Your task to perform on an android device: change notifications settings Image 0: 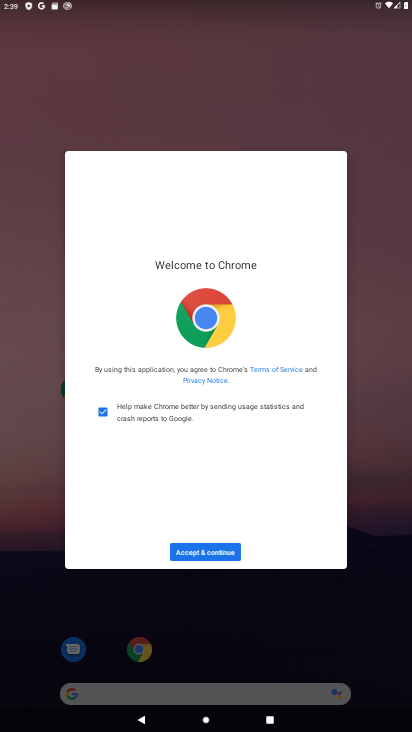
Step 0: press home button
Your task to perform on an android device: change notifications settings Image 1: 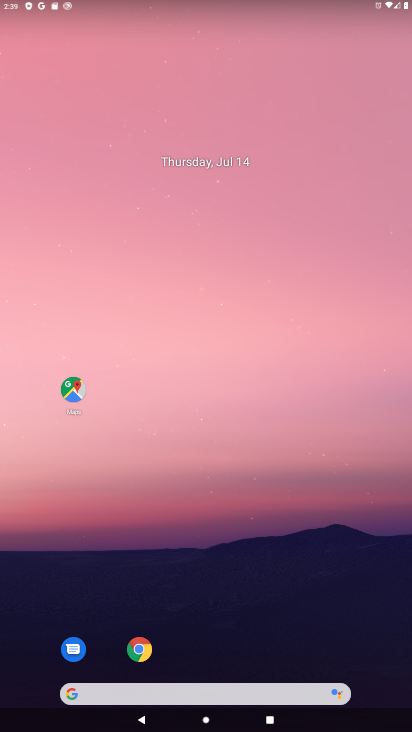
Step 1: drag from (275, 614) to (233, 117)
Your task to perform on an android device: change notifications settings Image 2: 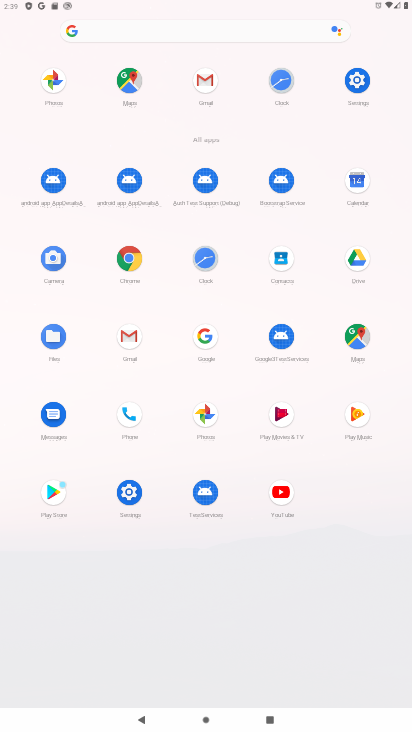
Step 2: click (356, 84)
Your task to perform on an android device: change notifications settings Image 3: 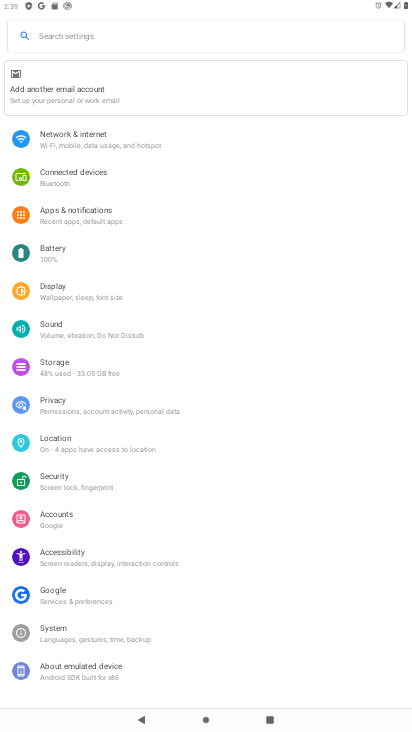
Step 3: click (125, 223)
Your task to perform on an android device: change notifications settings Image 4: 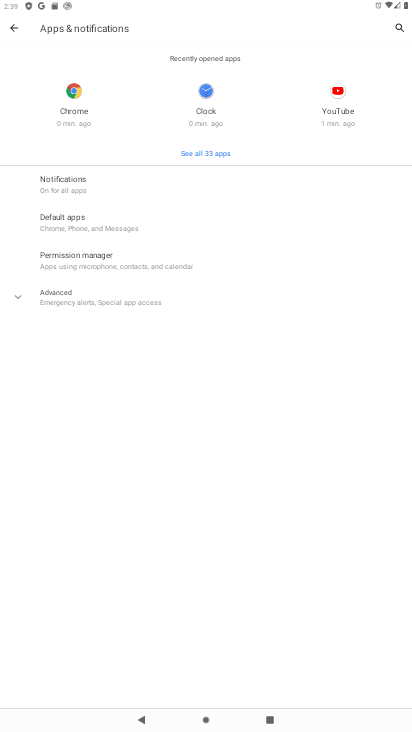
Step 4: click (106, 184)
Your task to perform on an android device: change notifications settings Image 5: 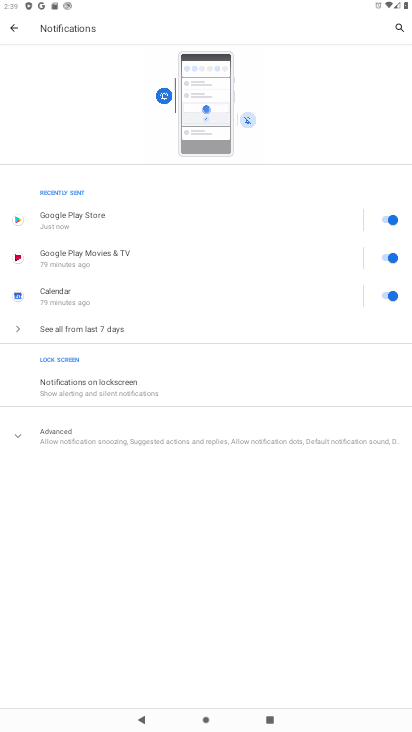
Step 5: click (87, 329)
Your task to perform on an android device: change notifications settings Image 6: 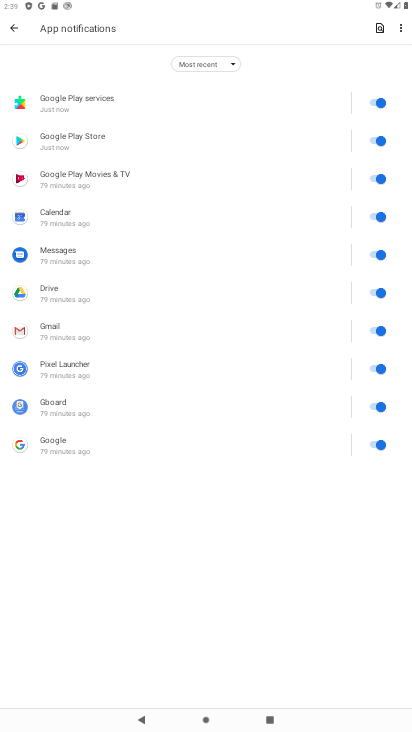
Step 6: click (377, 102)
Your task to perform on an android device: change notifications settings Image 7: 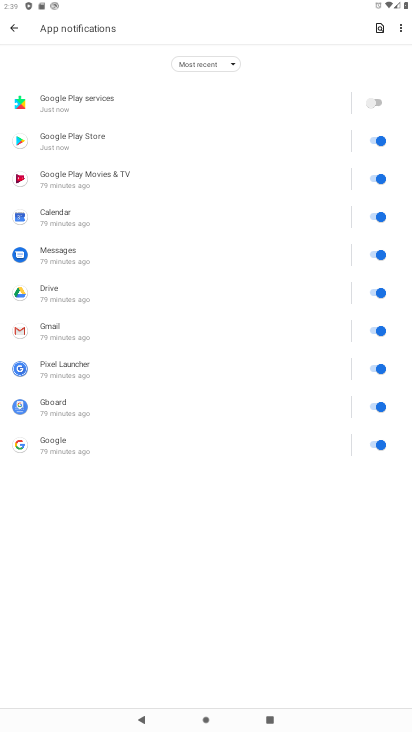
Step 7: click (378, 144)
Your task to perform on an android device: change notifications settings Image 8: 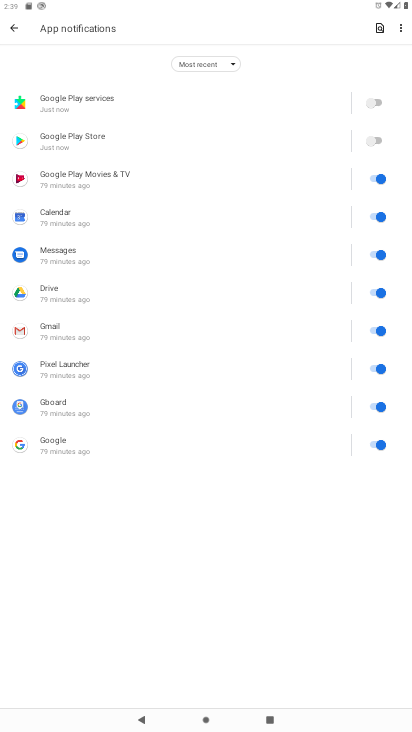
Step 8: click (378, 177)
Your task to perform on an android device: change notifications settings Image 9: 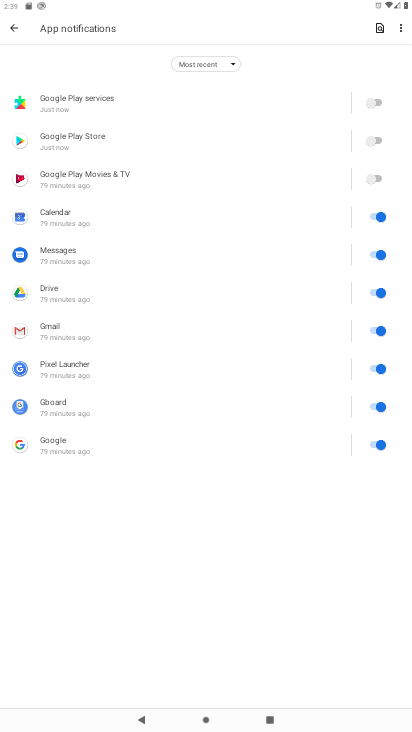
Step 9: click (374, 218)
Your task to perform on an android device: change notifications settings Image 10: 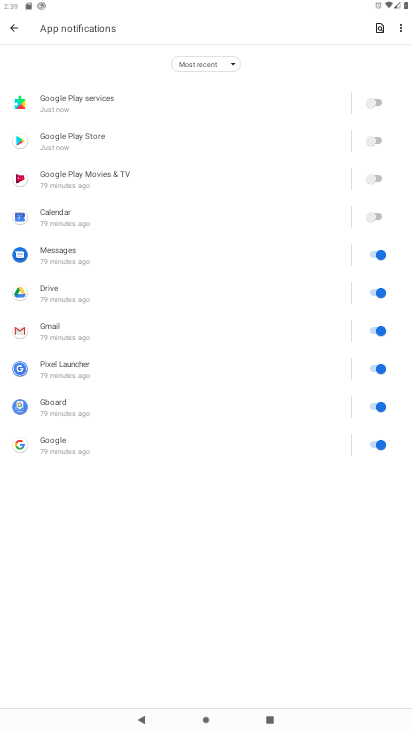
Step 10: click (378, 252)
Your task to perform on an android device: change notifications settings Image 11: 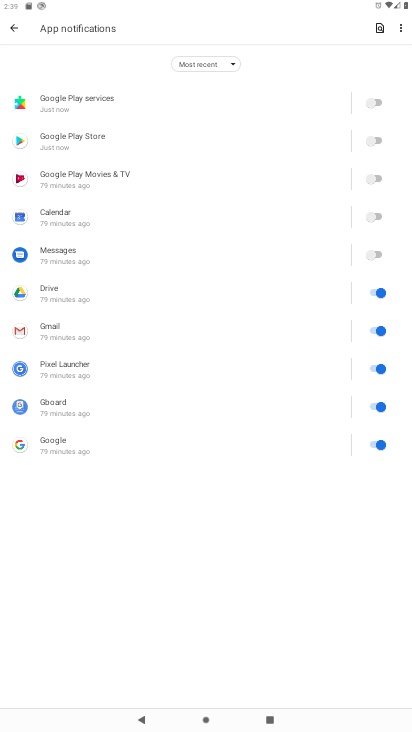
Step 11: click (372, 297)
Your task to perform on an android device: change notifications settings Image 12: 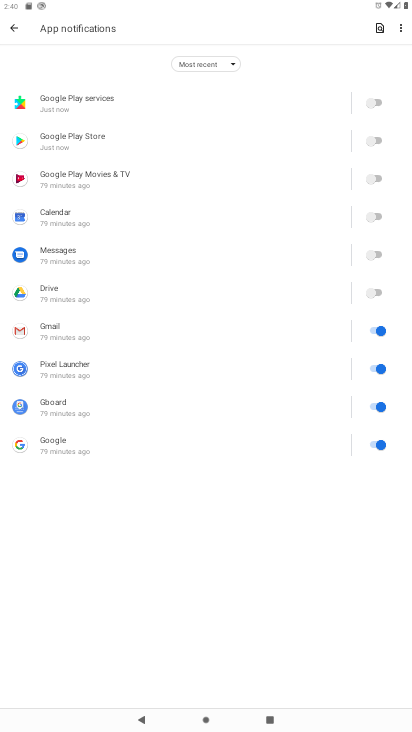
Step 12: click (381, 336)
Your task to perform on an android device: change notifications settings Image 13: 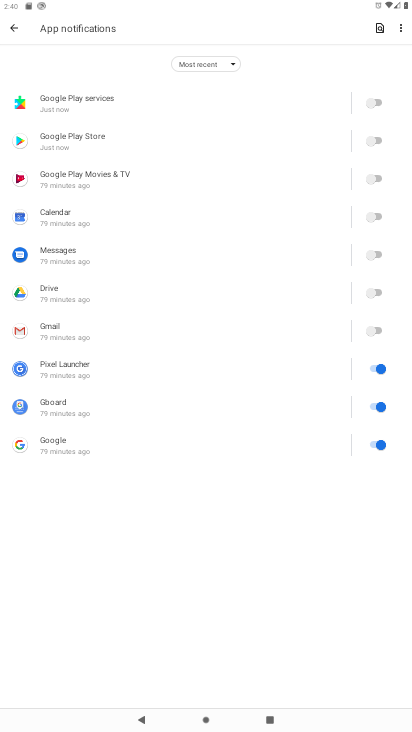
Step 13: click (378, 363)
Your task to perform on an android device: change notifications settings Image 14: 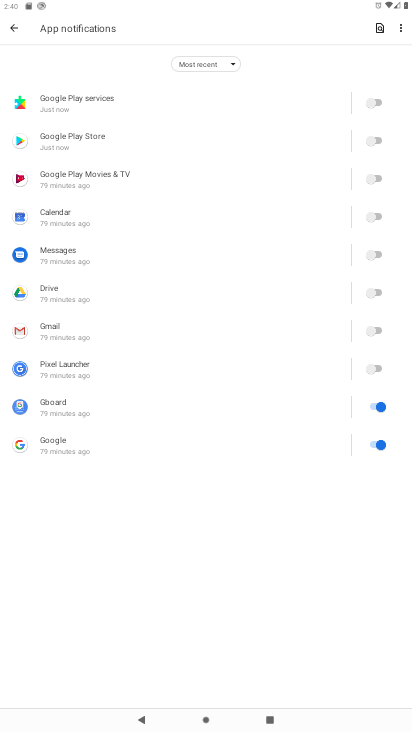
Step 14: click (378, 397)
Your task to perform on an android device: change notifications settings Image 15: 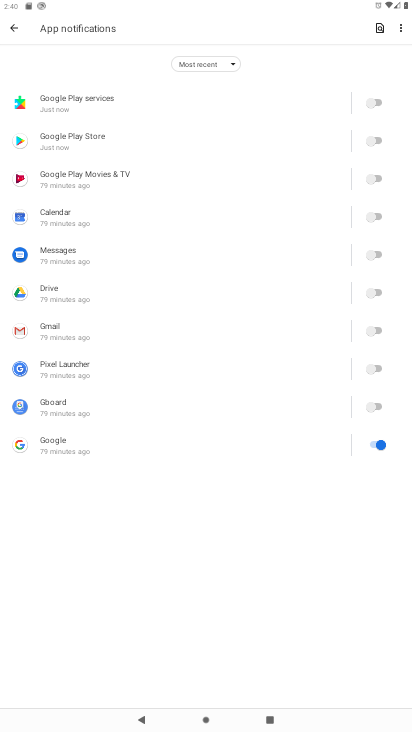
Step 15: click (378, 432)
Your task to perform on an android device: change notifications settings Image 16: 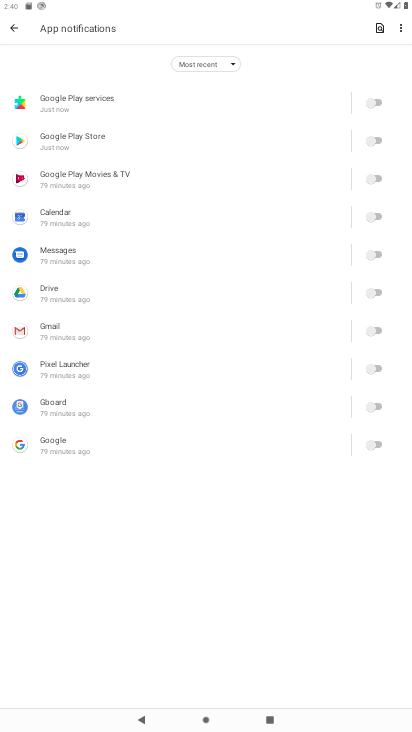
Step 16: click (17, 21)
Your task to perform on an android device: change notifications settings Image 17: 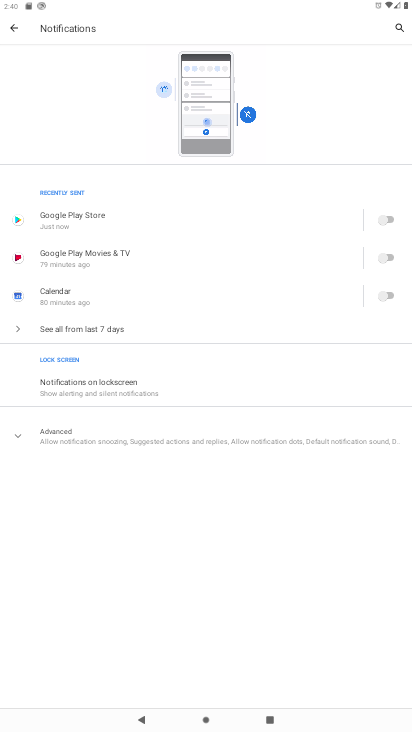
Step 17: click (86, 376)
Your task to perform on an android device: change notifications settings Image 18: 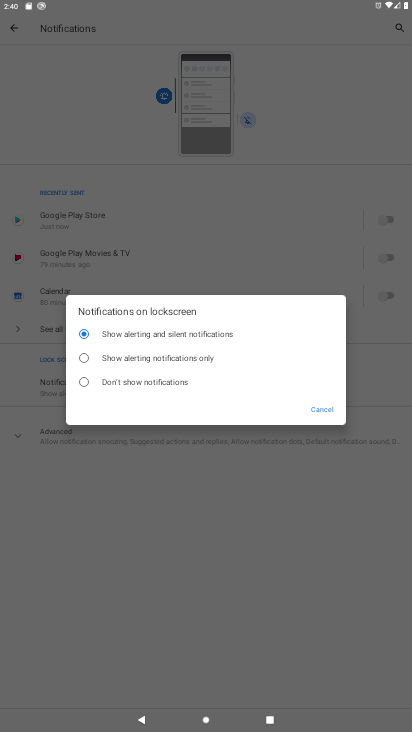
Step 18: click (105, 352)
Your task to perform on an android device: change notifications settings Image 19: 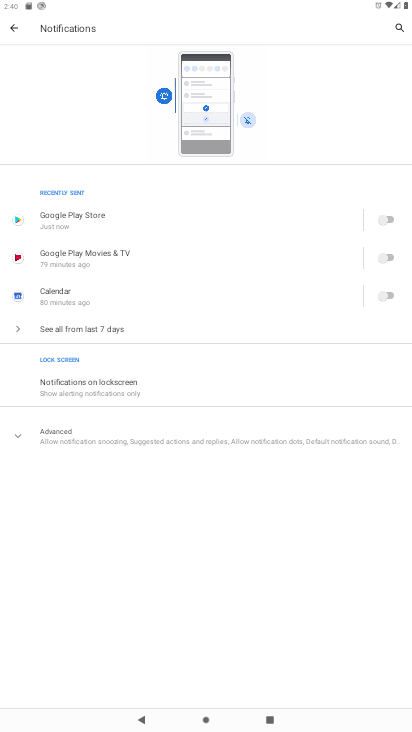
Step 19: click (107, 436)
Your task to perform on an android device: change notifications settings Image 20: 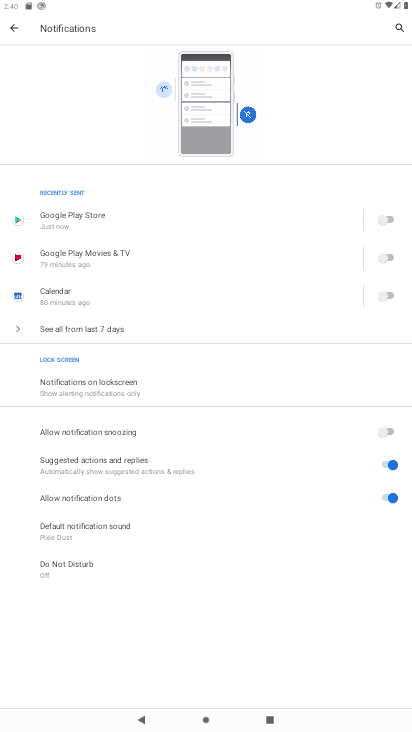
Step 20: click (388, 440)
Your task to perform on an android device: change notifications settings Image 21: 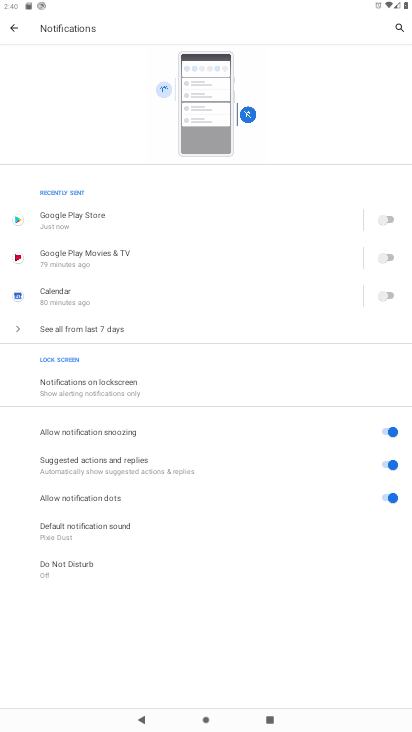
Step 21: click (388, 455)
Your task to perform on an android device: change notifications settings Image 22: 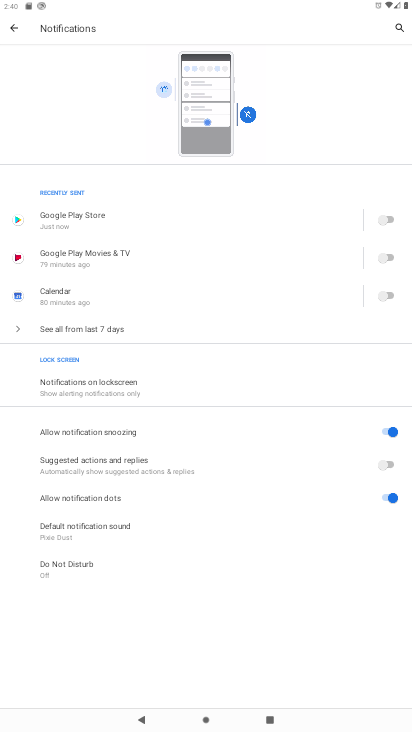
Step 22: click (396, 488)
Your task to perform on an android device: change notifications settings Image 23: 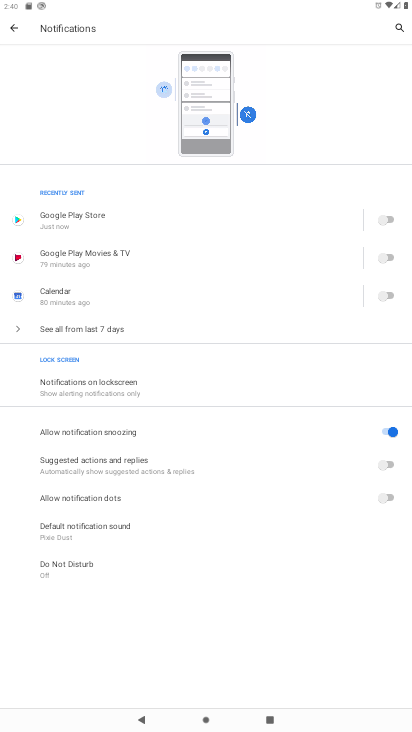
Step 23: task complete